Your task to perform on an android device: Open the web browser Image 0: 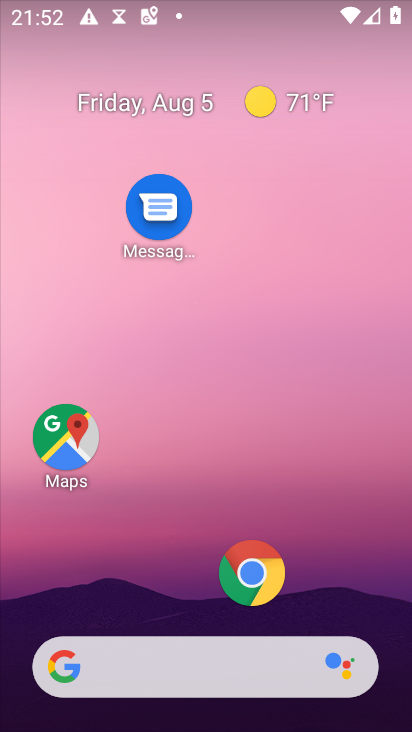
Step 0: click (248, 568)
Your task to perform on an android device: Open the web browser Image 1: 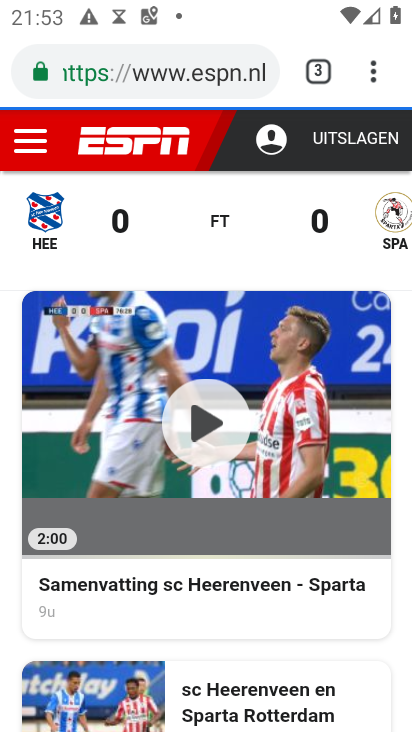
Step 1: click (315, 68)
Your task to perform on an android device: Open the web browser Image 2: 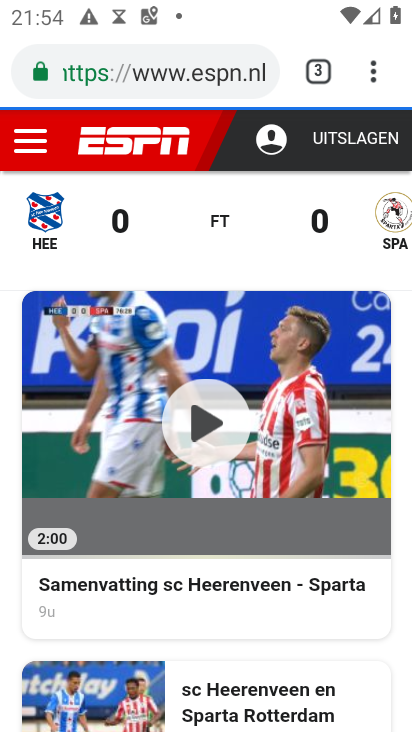
Step 2: click (321, 70)
Your task to perform on an android device: Open the web browser Image 3: 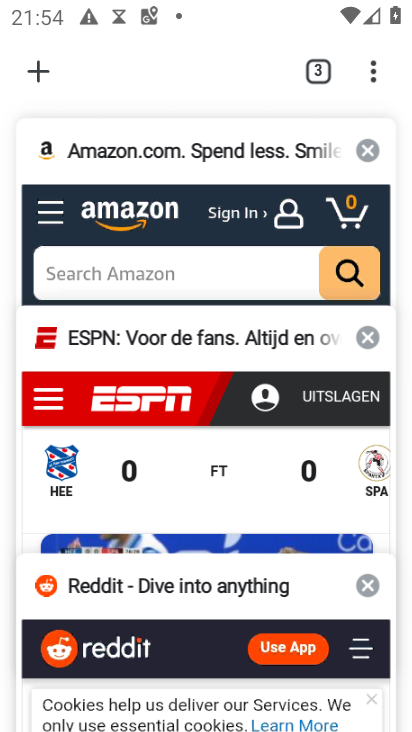
Step 3: click (30, 77)
Your task to perform on an android device: Open the web browser Image 4: 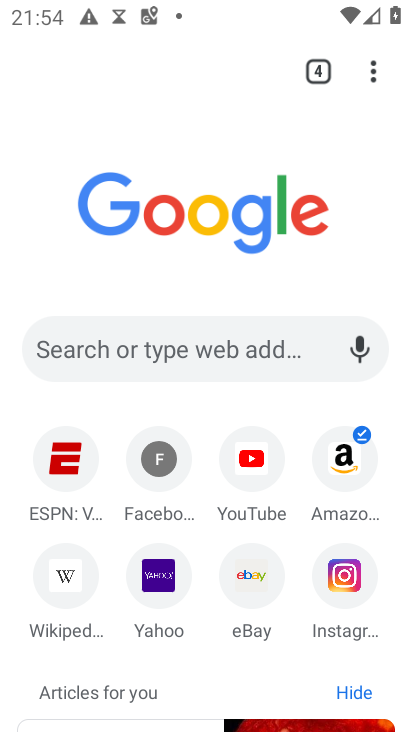
Step 4: task complete